Your task to perform on an android device: turn on improve location accuracy Image 0: 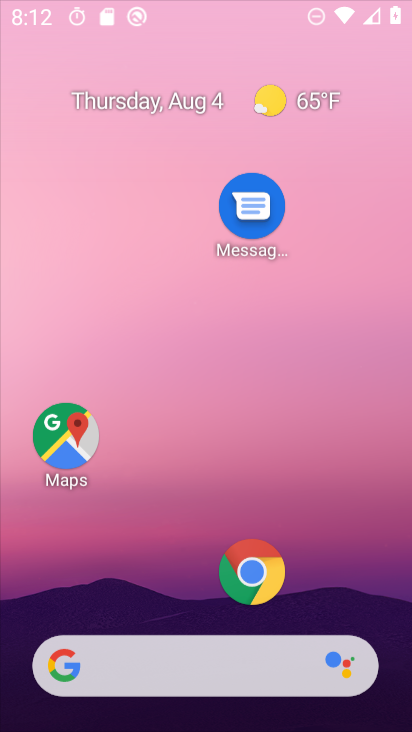
Step 0: press home button
Your task to perform on an android device: turn on improve location accuracy Image 1: 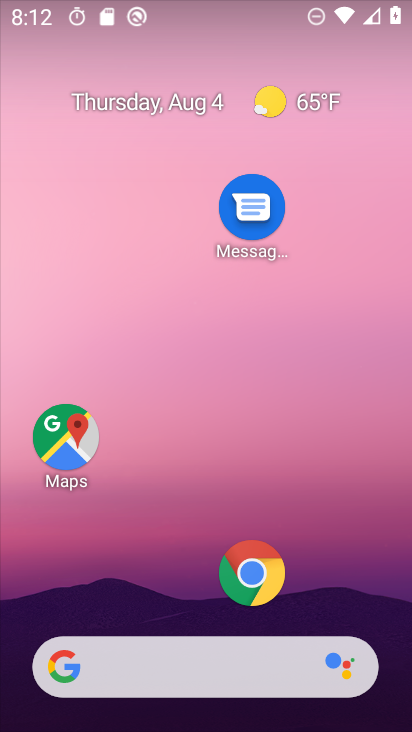
Step 1: drag from (175, 608) to (256, 285)
Your task to perform on an android device: turn on improve location accuracy Image 2: 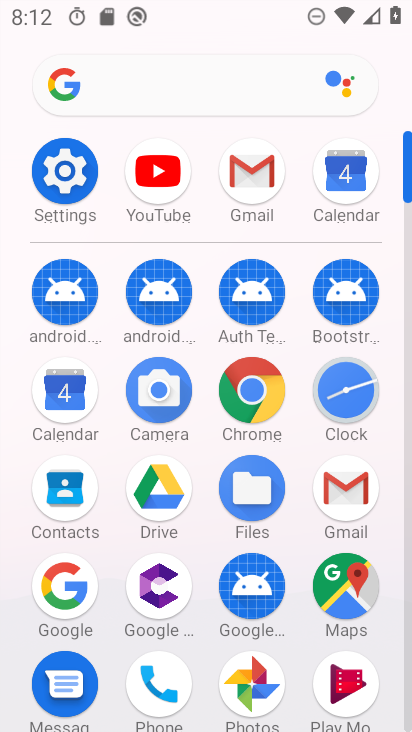
Step 2: click (61, 163)
Your task to perform on an android device: turn on improve location accuracy Image 3: 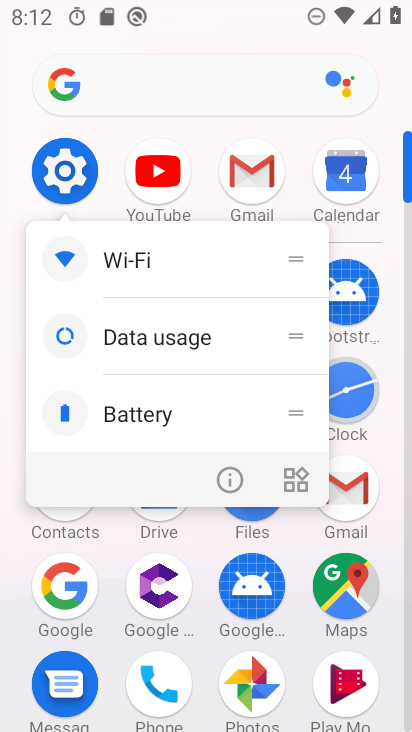
Step 3: click (55, 162)
Your task to perform on an android device: turn on improve location accuracy Image 4: 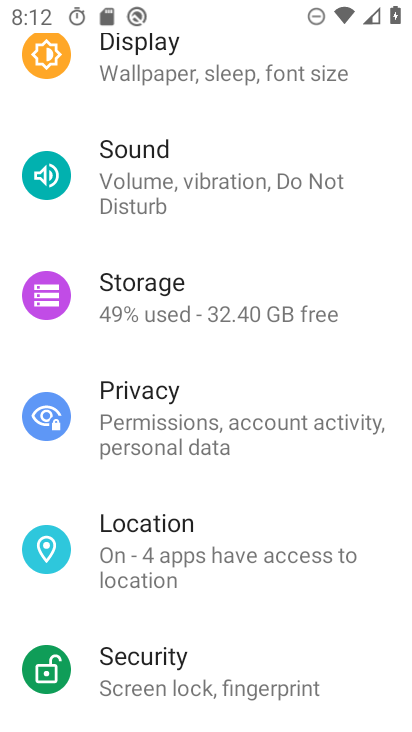
Step 4: click (124, 541)
Your task to perform on an android device: turn on improve location accuracy Image 5: 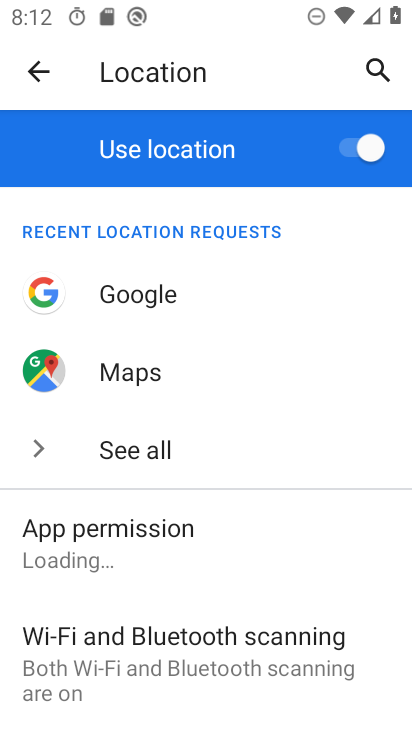
Step 5: drag from (197, 721) to (268, 193)
Your task to perform on an android device: turn on improve location accuracy Image 6: 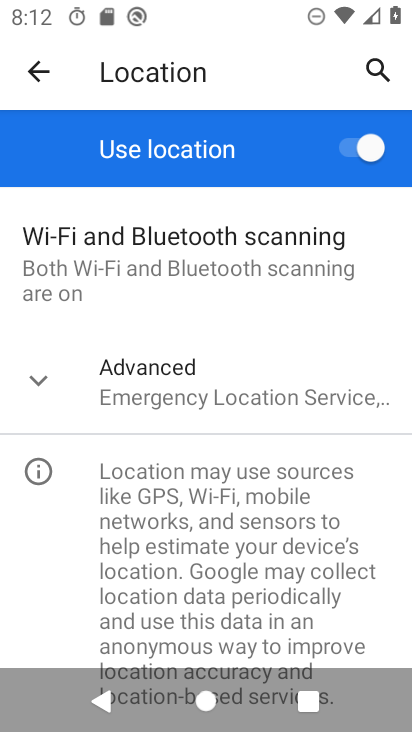
Step 6: click (131, 404)
Your task to perform on an android device: turn on improve location accuracy Image 7: 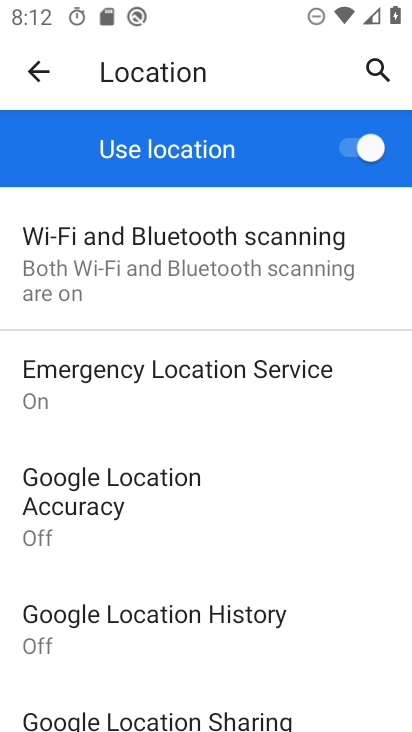
Step 7: click (135, 490)
Your task to perform on an android device: turn on improve location accuracy Image 8: 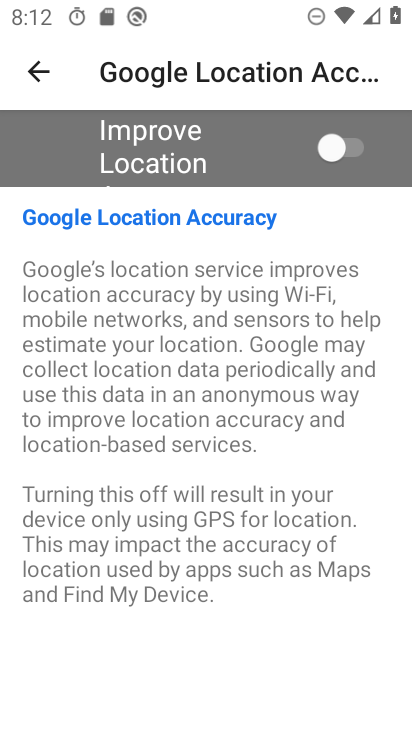
Step 8: click (337, 152)
Your task to perform on an android device: turn on improve location accuracy Image 9: 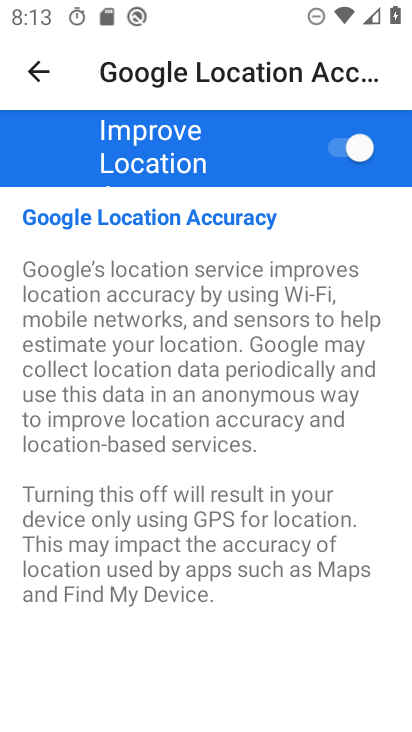
Step 9: task complete